Your task to perform on an android device: Is it going to rain this weekend? Image 0: 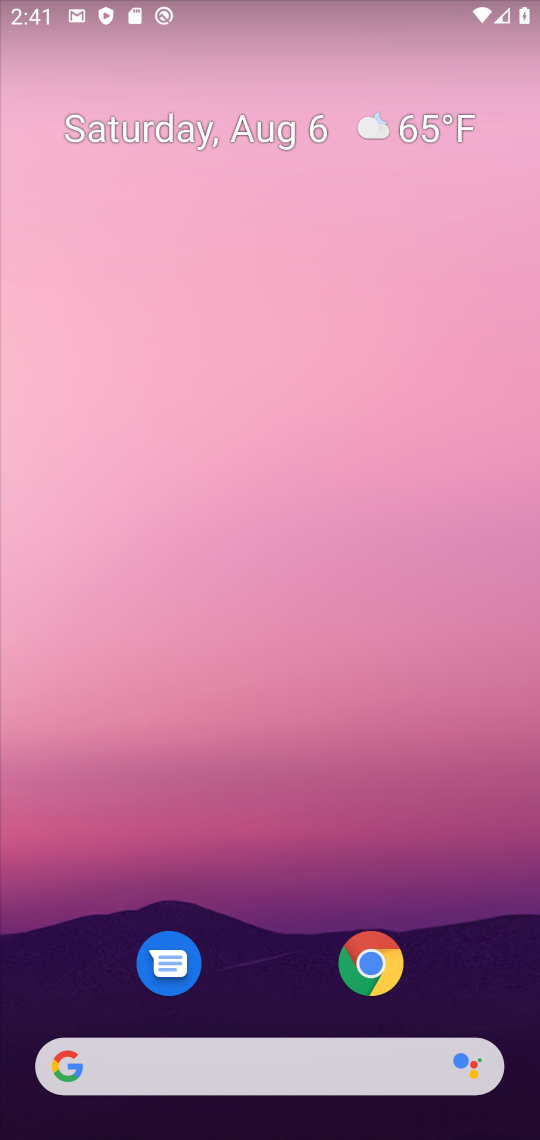
Step 0: click (449, 119)
Your task to perform on an android device: Is it going to rain this weekend? Image 1: 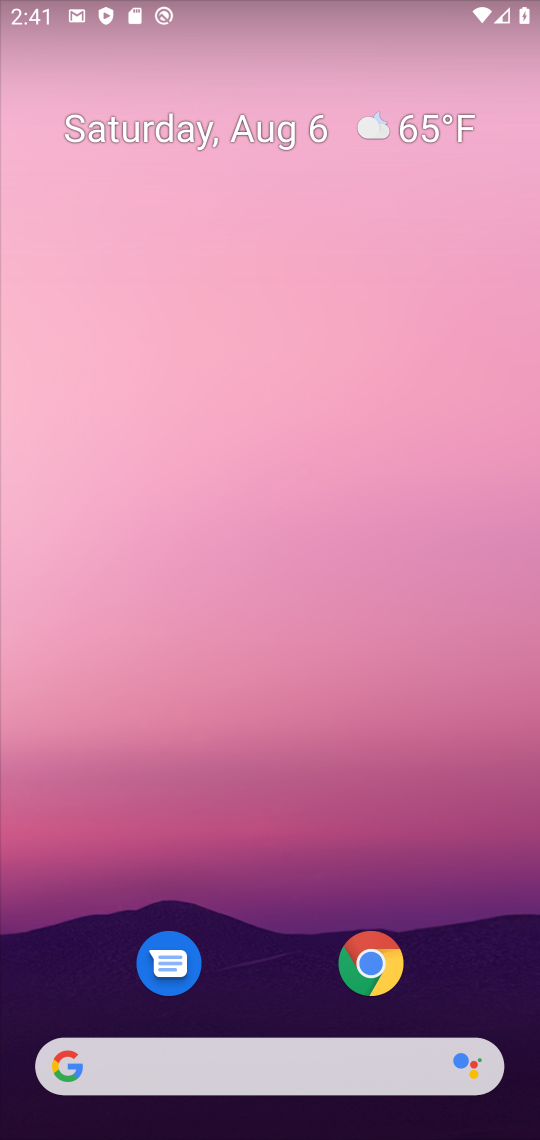
Step 1: click (449, 119)
Your task to perform on an android device: Is it going to rain this weekend? Image 2: 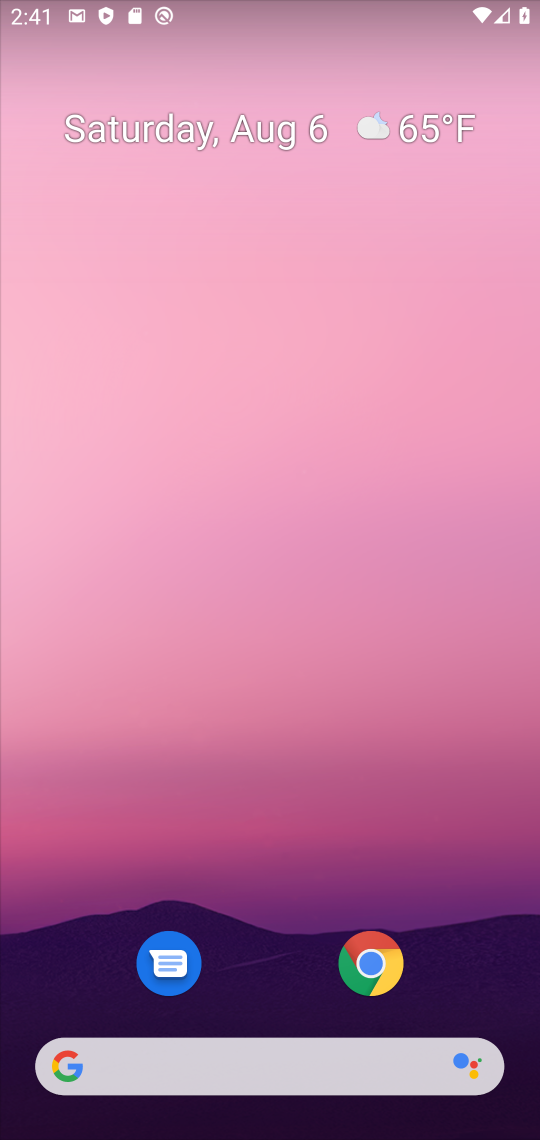
Step 2: click (441, 130)
Your task to perform on an android device: Is it going to rain this weekend? Image 3: 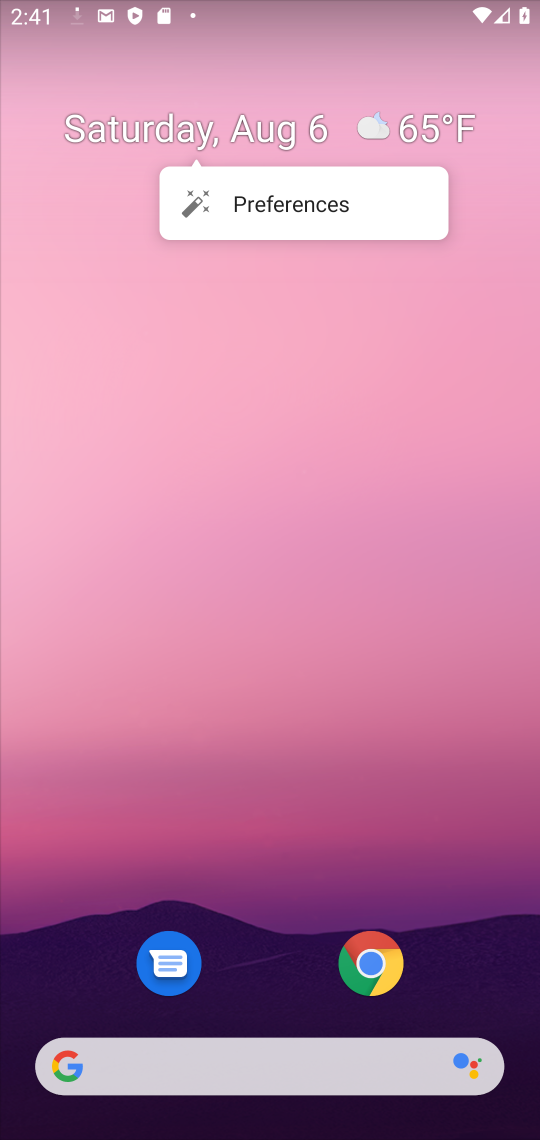
Step 3: click (441, 130)
Your task to perform on an android device: Is it going to rain this weekend? Image 4: 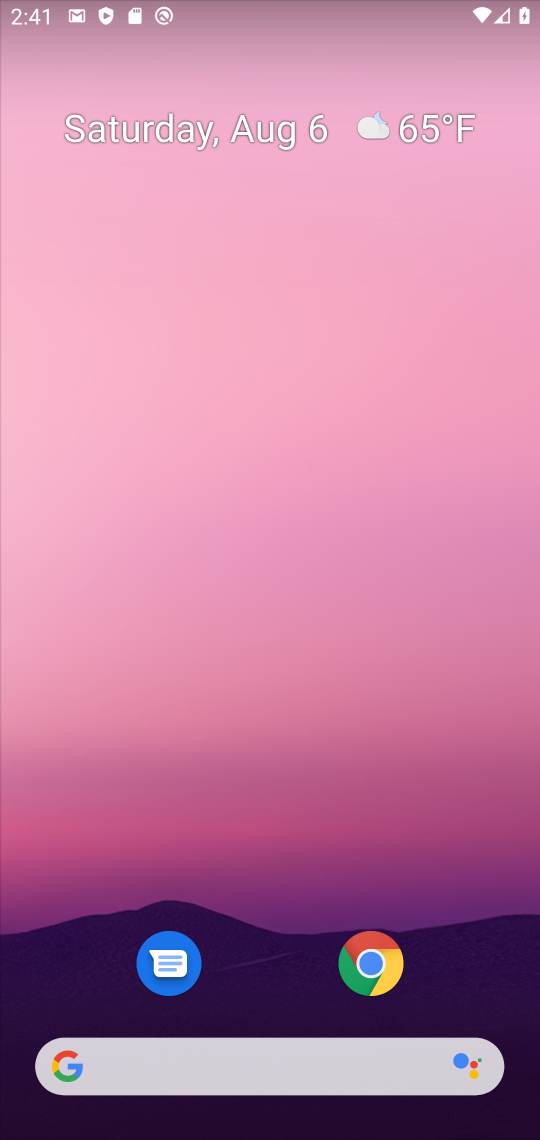
Step 4: click (359, 1065)
Your task to perform on an android device: Is it going to rain this weekend? Image 5: 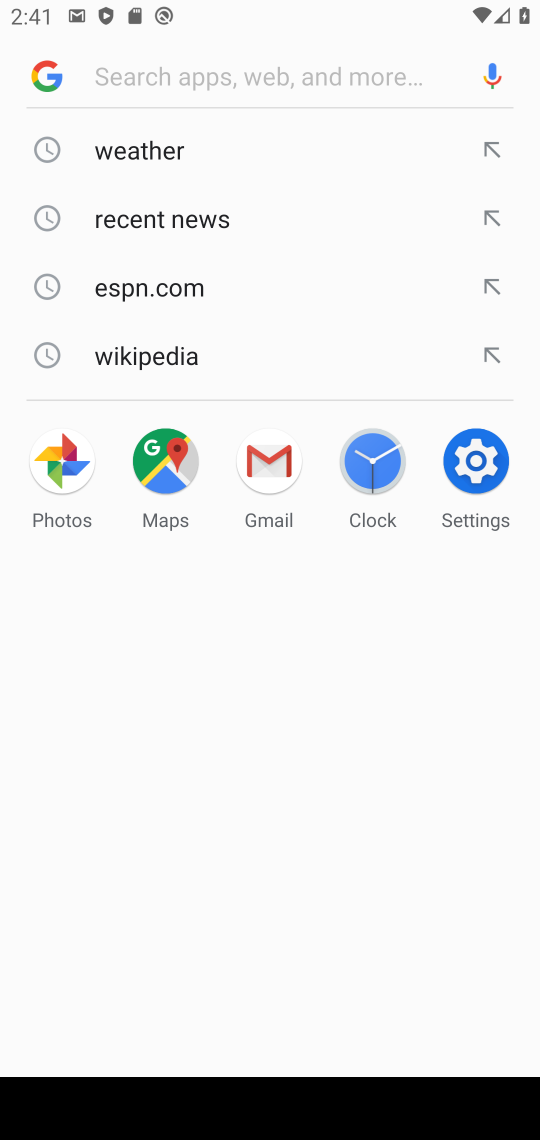
Step 5: click (186, 136)
Your task to perform on an android device: Is it going to rain this weekend? Image 6: 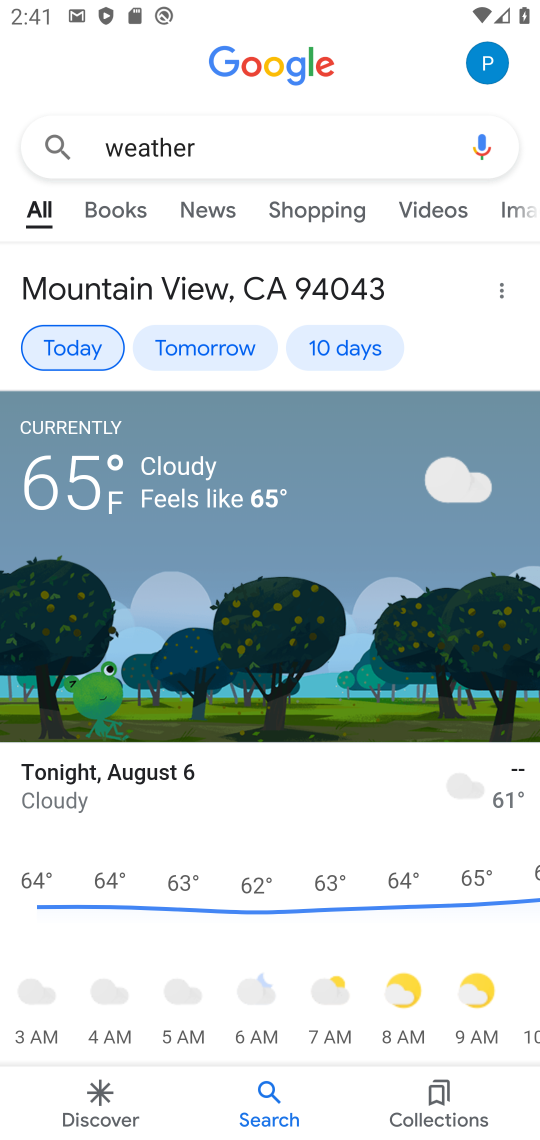
Step 6: task complete